Your task to perform on an android device: turn off location history Image 0: 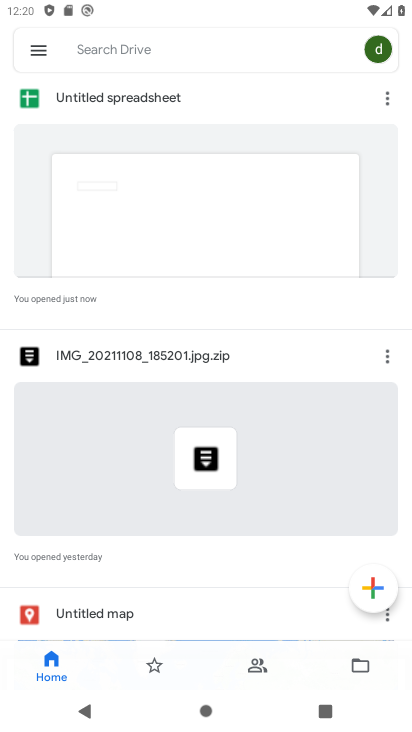
Step 0: press home button
Your task to perform on an android device: turn off location history Image 1: 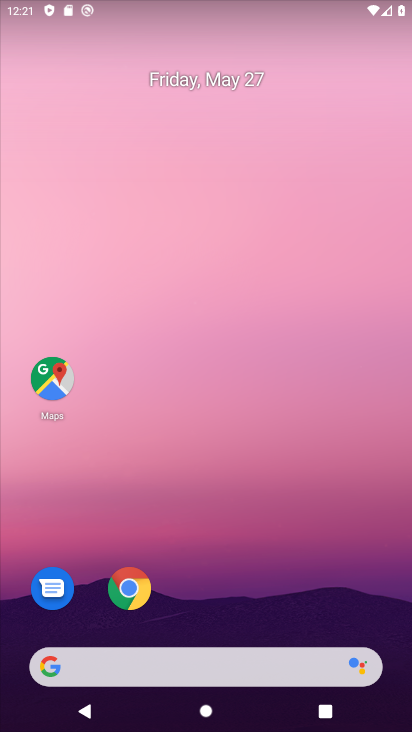
Step 1: drag from (220, 625) to (252, 14)
Your task to perform on an android device: turn off location history Image 2: 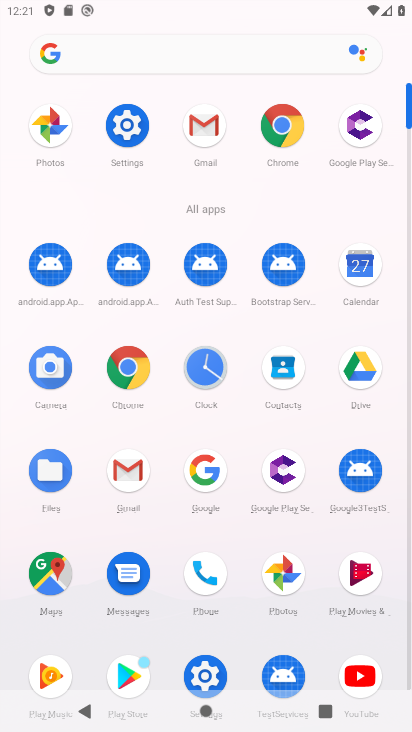
Step 2: click (212, 665)
Your task to perform on an android device: turn off location history Image 3: 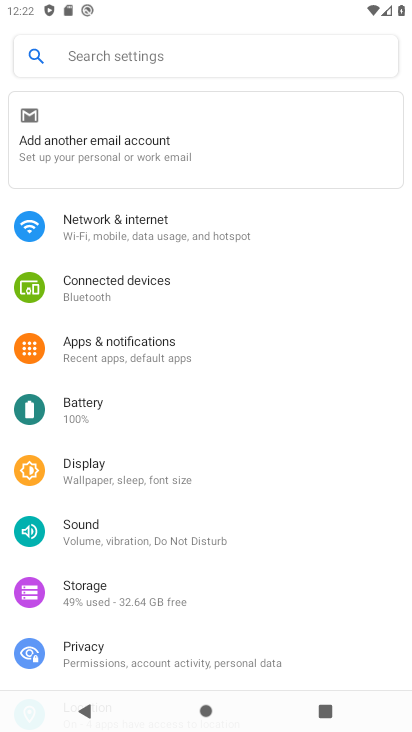
Step 3: drag from (120, 523) to (113, 139)
Your task to perform on an android device: turn off location history Image 4: 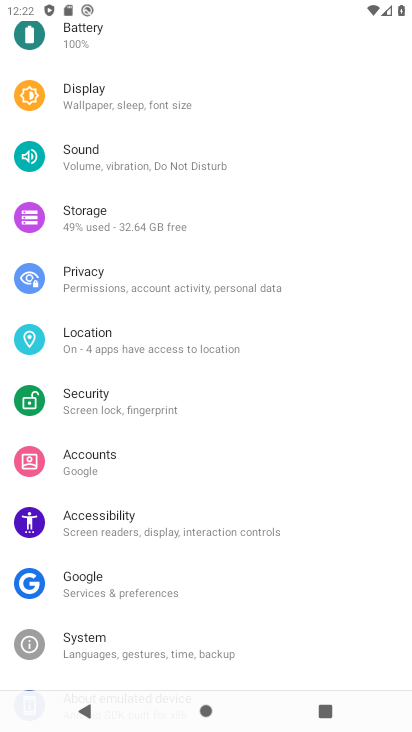
Step 4: click (94, 358)
Your task to perform on an android device: turn off location history Image 5: 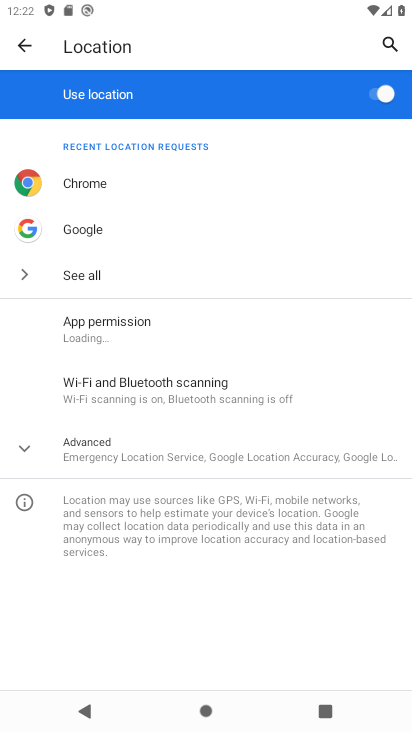
Step 5: click (140, 453)
Your task to perform on an android device: turn off location history Image 6: 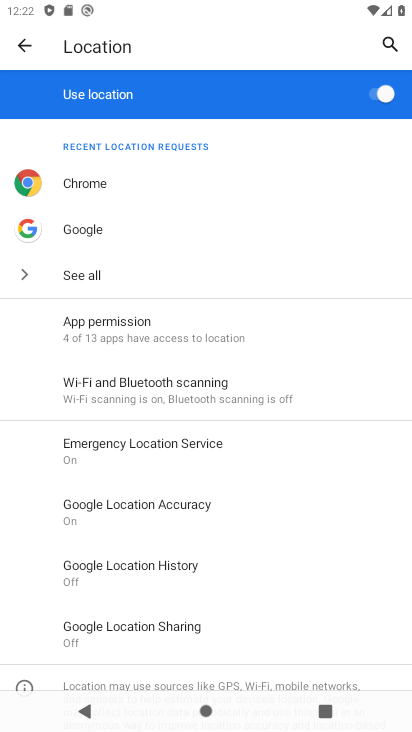
Step 6: click (179, 570)
Your task to perform on an android device: turn off location history Image 7: 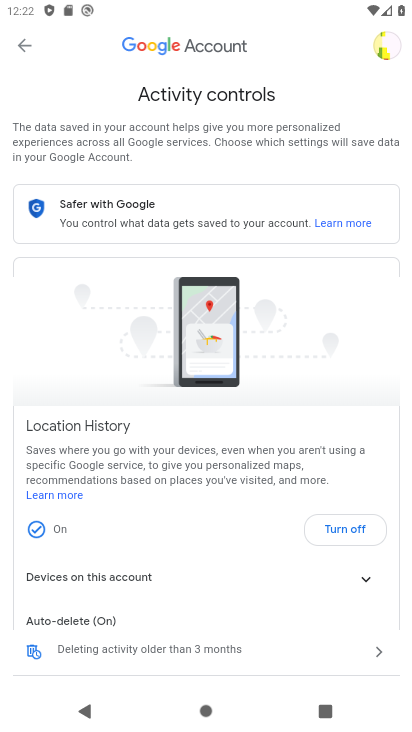
Step 7: click (359, 532)
Your task to perform on an android device: turn off location history Image 8: 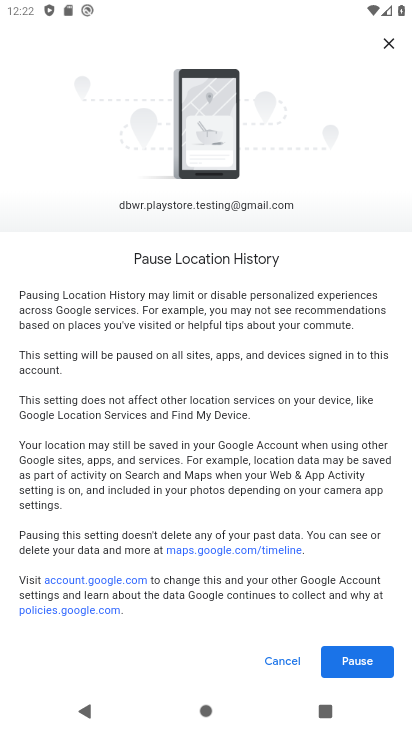
Step 8: click (357, 666)
Your task to perform on an android device: turn off location history Image 9: 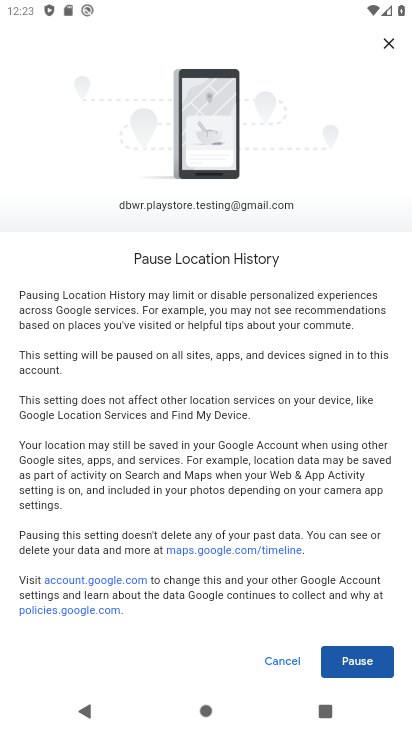
Step 9: task complete